Your task to perform on an android device: Do I have any events this weekend? Image 0: 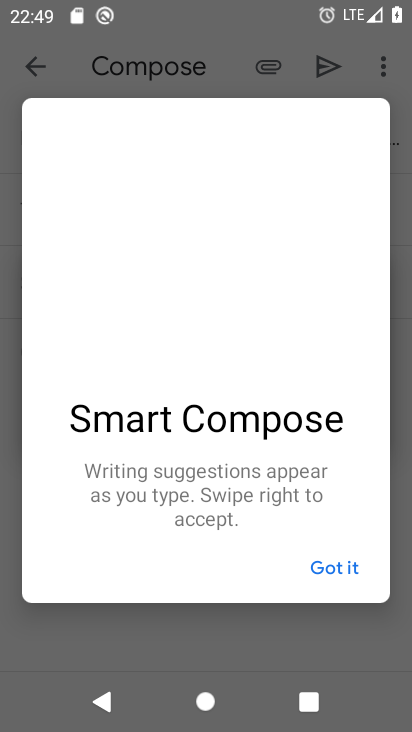
Step 0: press home button
Your task to perform on an android device: Do I have any events this weekend? Image 1: 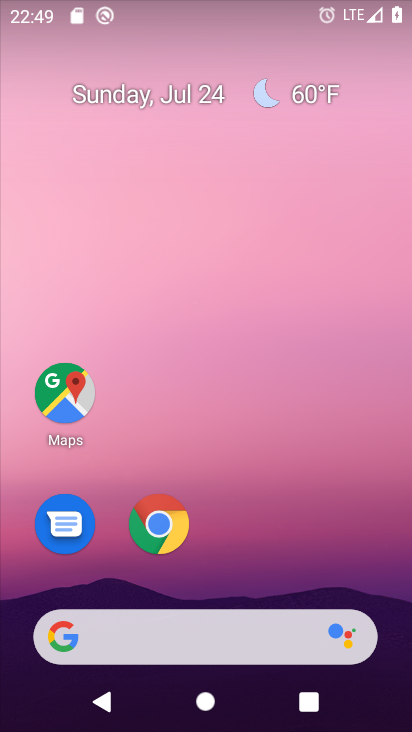
Step 1: drag from (261, 571) to (327, 51)
Your task to perform on an android device: Do I have any events this weekend? Image 2: 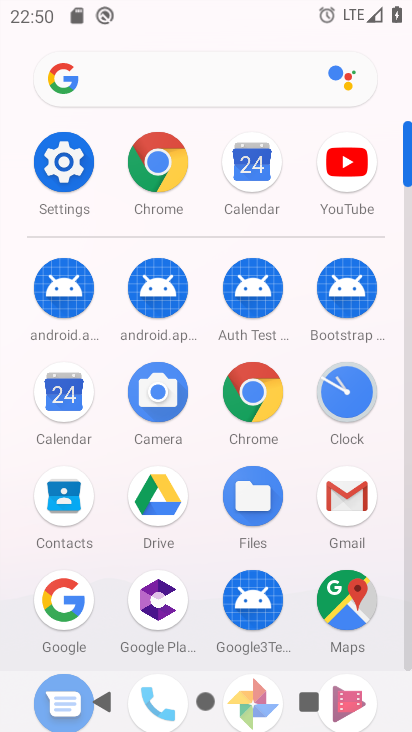
Step 2: click (250, 164)
Your task to perform on an android device: Do I have any events this weekend? Image 3: 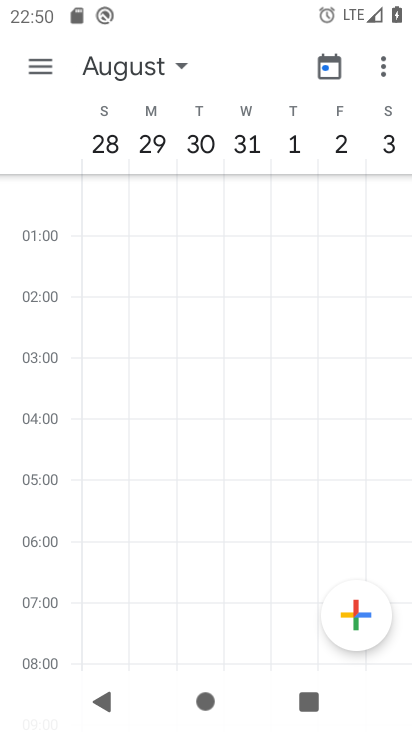
Step 3: task complete